Your task to perform on an android device: When is my next meeting? Image 0: 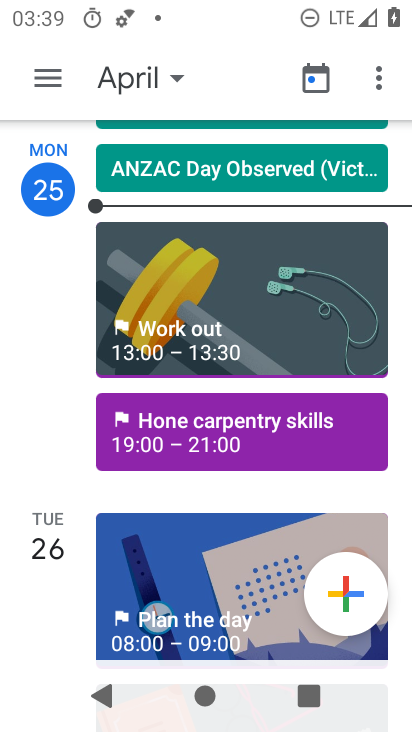
Step 0: press home button
Your task to perform on an android device: When is my next meeting? Image 1: 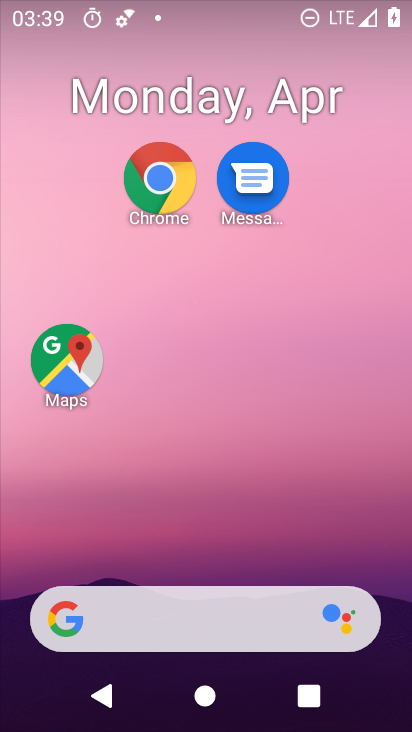
Step 1: drag from (242, 607) to (344, 82)
Your task to perform on an android device: When is my next meeting? Image 2: 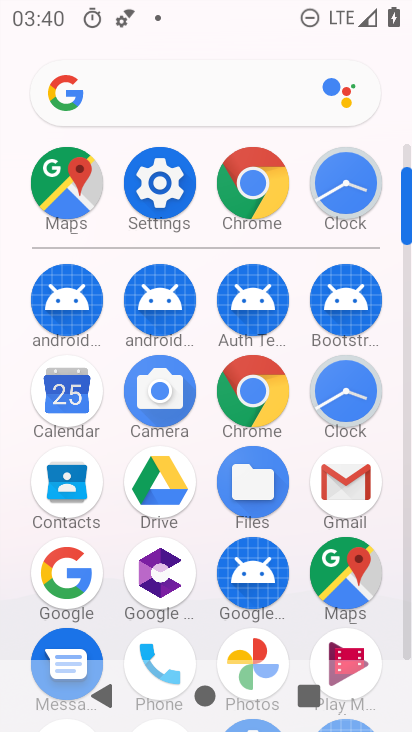
Step 2: click (77, 412)
Your task to perform on an android device: When is my next meeting? Image 3: 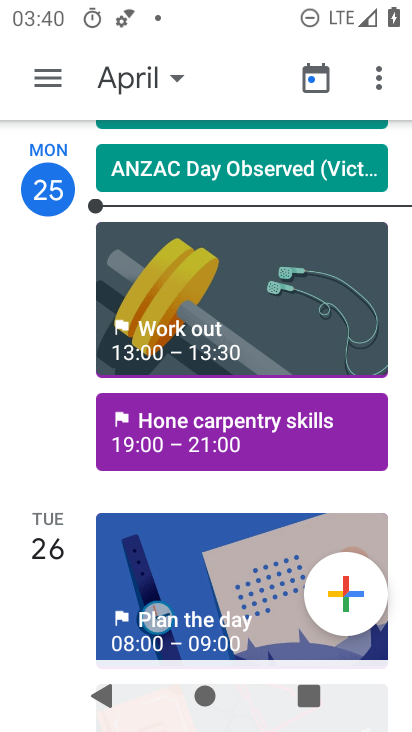
Step 3: click (171, 79)
Your task to perform on an android device: When is my next meeting? Image 4: 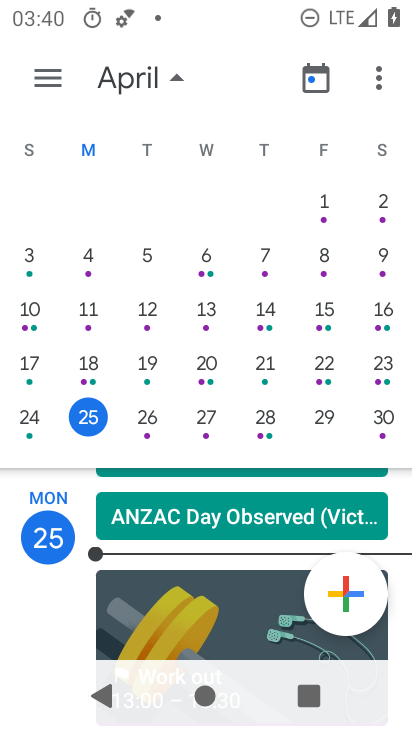
Step 4: task complete